Your task to perform on an android device: allow notifications from all sites in the chrome app Image 0: 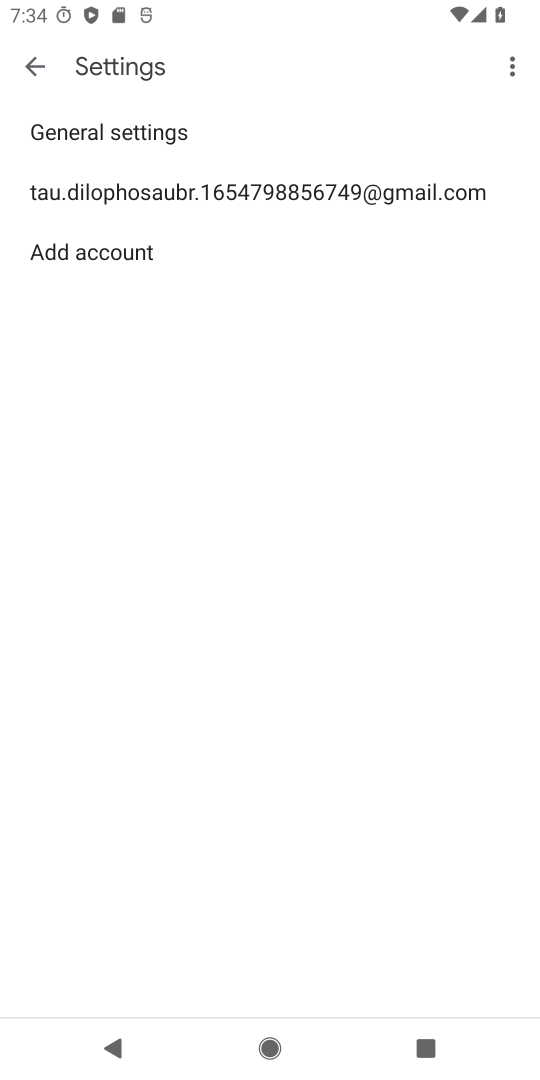
Step 0: press home button
Your task to perform on an android device: allow notifications from all sites in the chrome app Image 1: 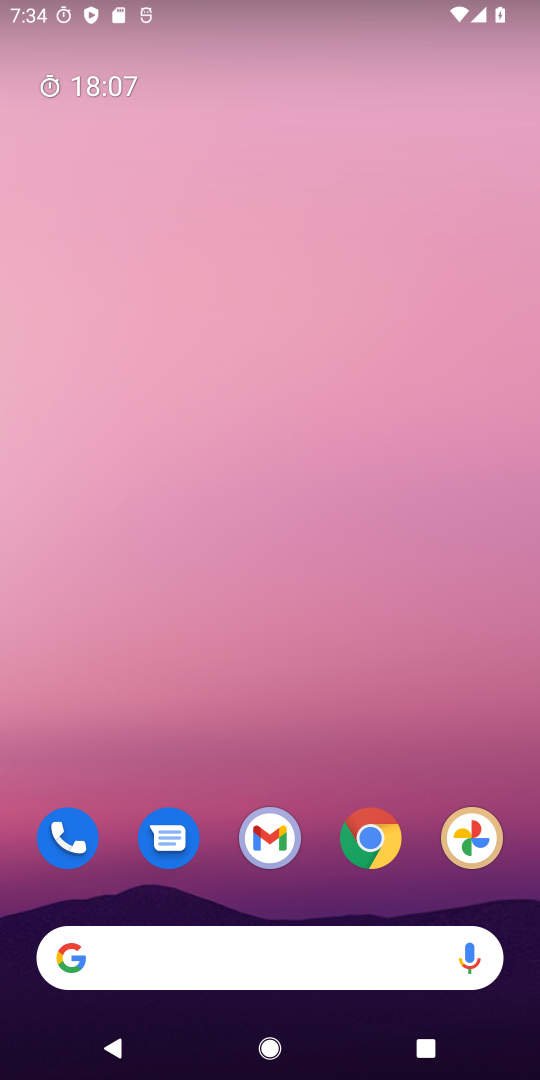
Step 1: drag from (299, 873) to (451, 170)
Your task to perform on an android device: allow notifications from all sites in the chrome app Image 2: 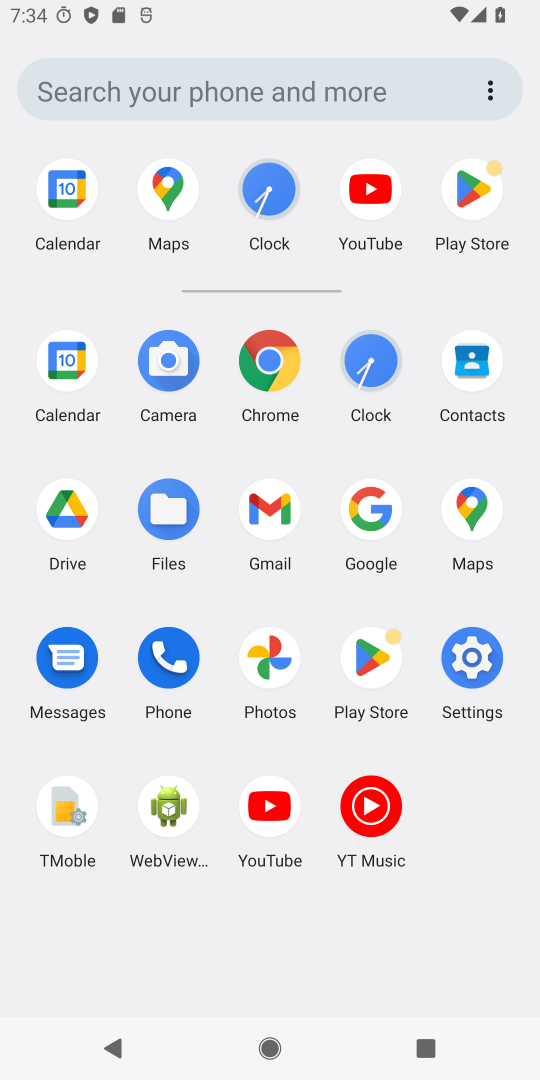
Step 2: click (273, 359)
Your task to perform on an android device: allow notifications from all sites in the chrome app Image 3: 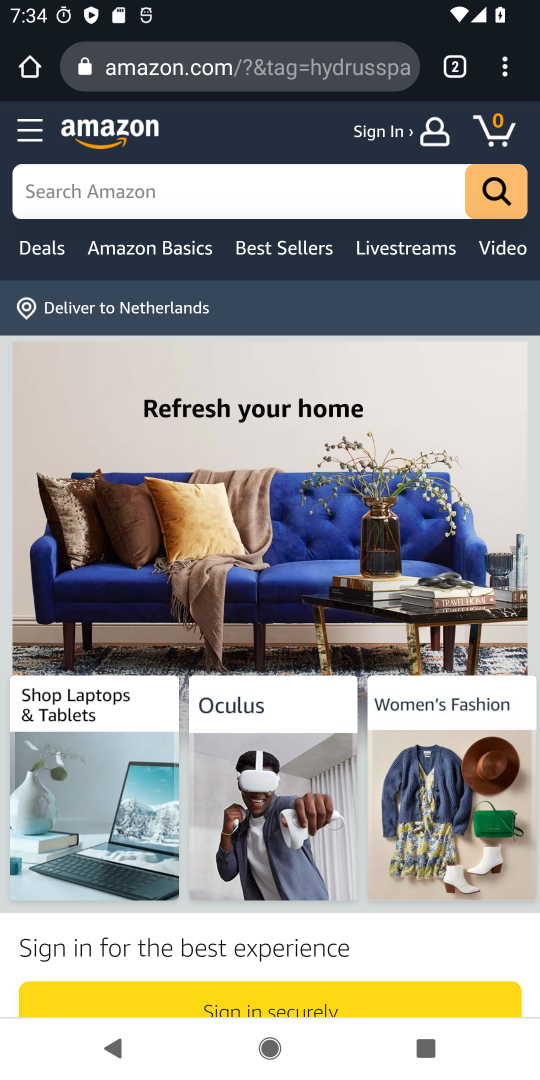
Step 3: press home button
Your task to perform on an android device: allow notifications from all sites in the chrome app Image 4: 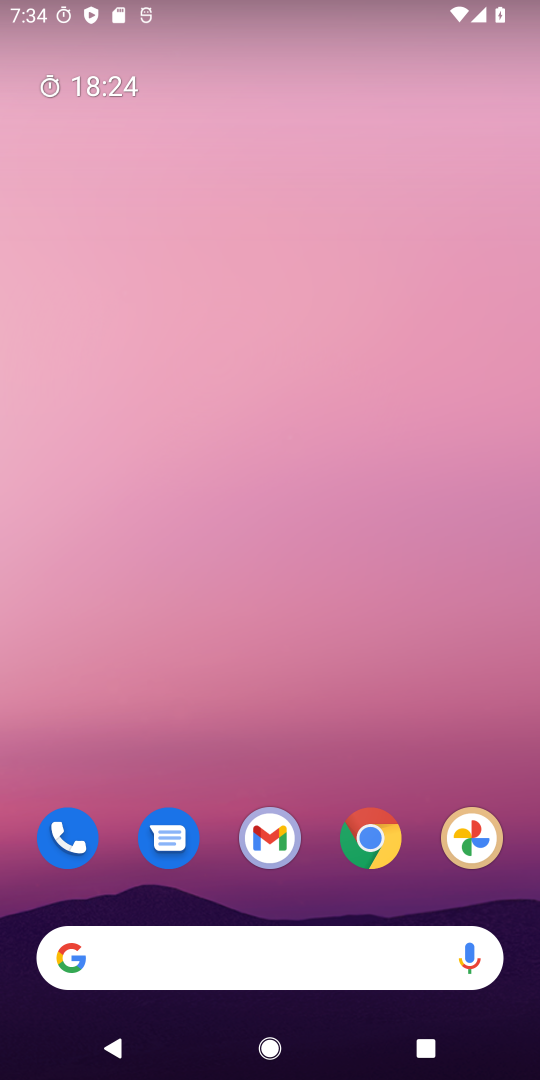
Step 4: click (359, 827)
Your task to perform on an android device: allow notifications from all sites in the chrome app Image 5: 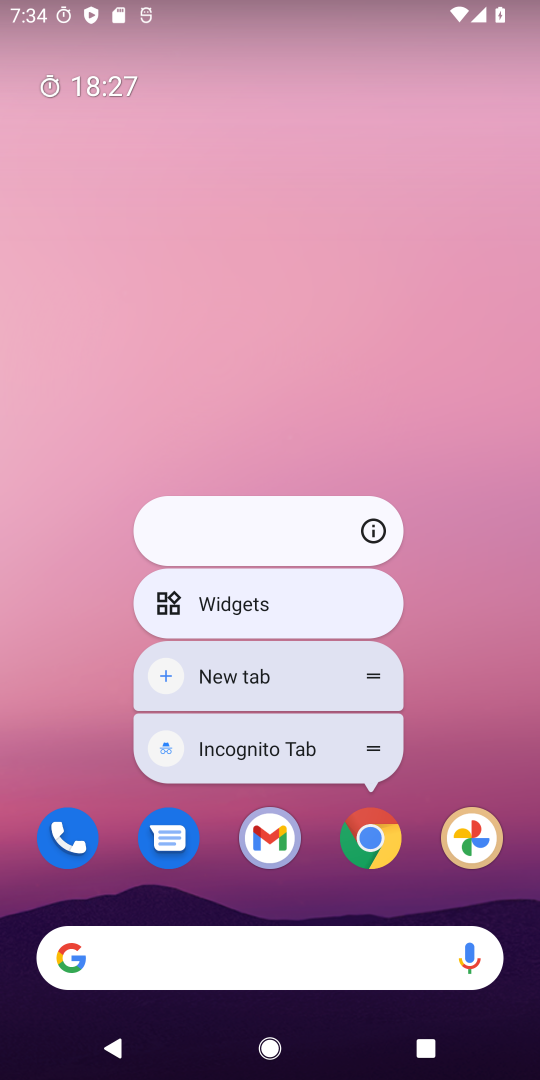
Step 5: click (382, 527)
Your task to perform on an android device: allow notifications from all sites in the chrome app Image 6: 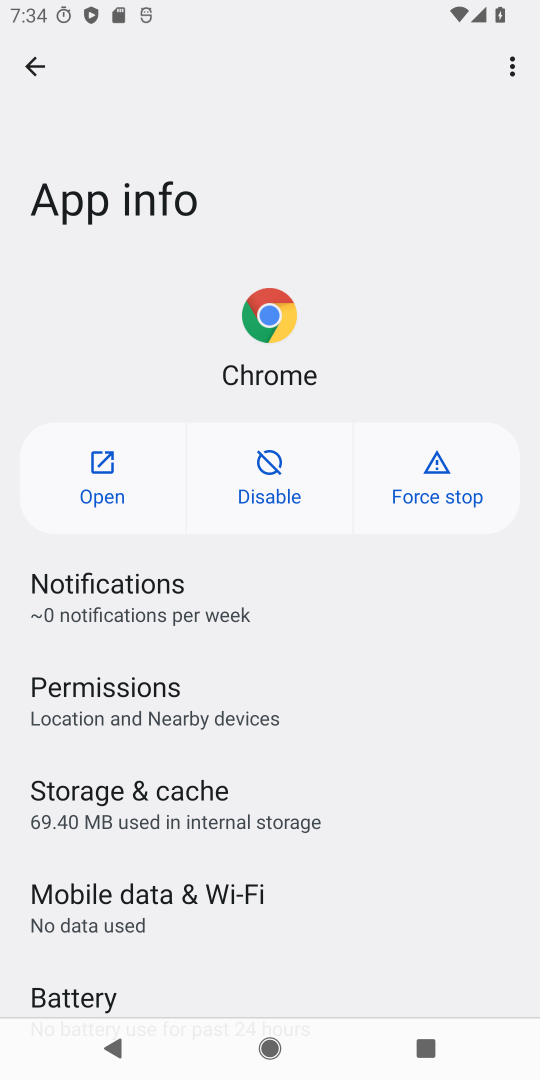
Step 6: click (149, 608)
Your task to perform on an android device: allow notifications from all sites in the chrome app Image 7: 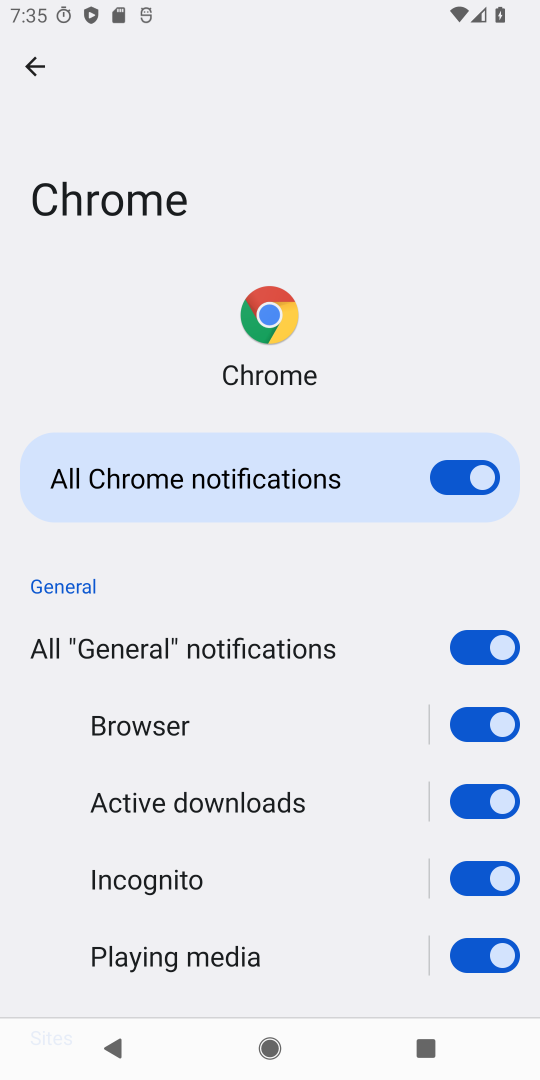
Step 7: task complete